Your task to perform on an android device: Open Maps and search for coffee Image 0: 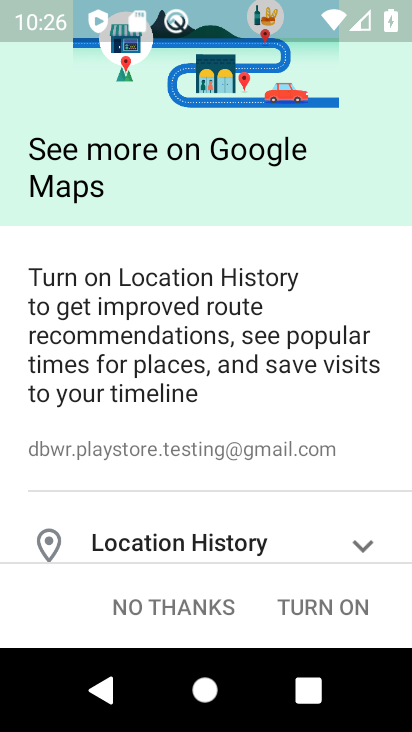
Step 0: click (129, 603)
Your task to perform on an android device: Open Maps and search for coffee Image 1: 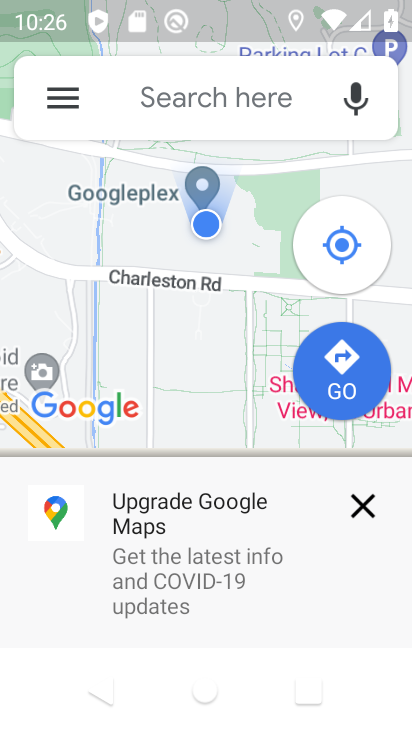
Step 1: click (144, 100)
Your task to perform on an android device: Open Maps and search for coffee Image 2: 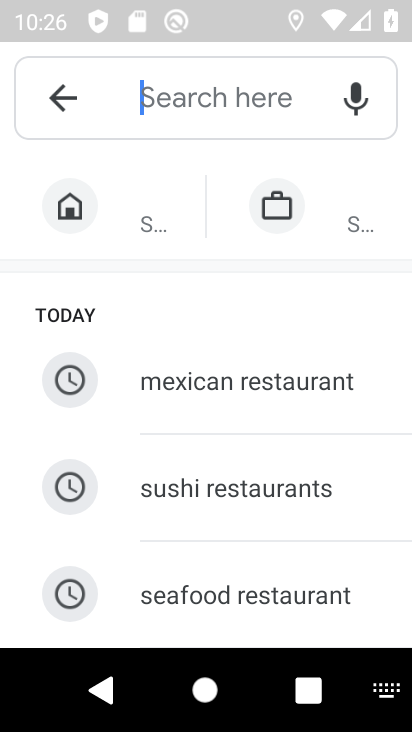
Step 2: type "coffee"
Your task to perform on an android device: Open Maps and search for coffee Image 3: 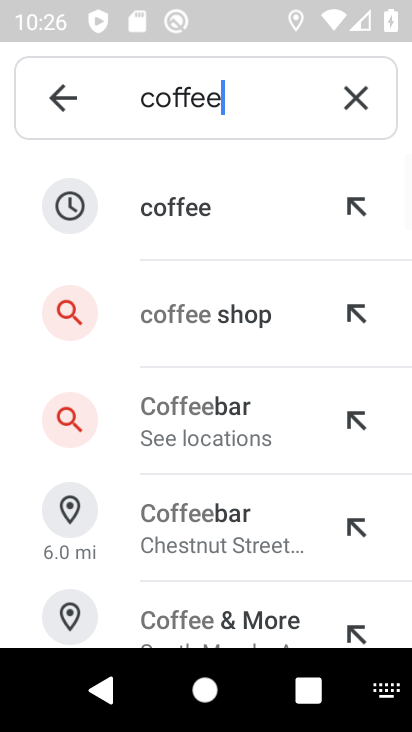
Step 3: click (170, 212)
Your task to perform on an android device: Open Maps and search for coffee Image 4: 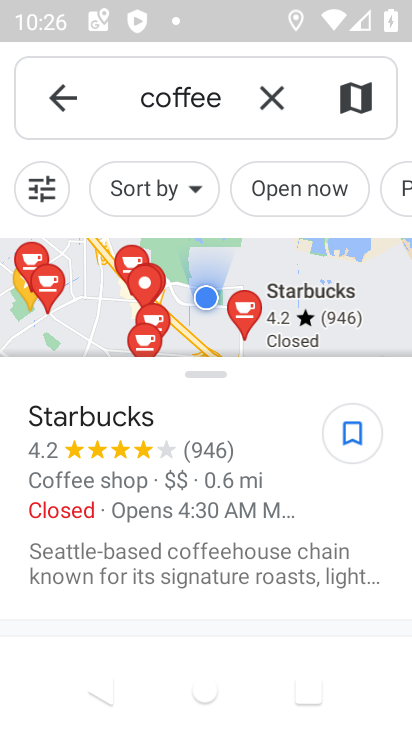
Step 4: task complete